Your task to perform on an android device: Go to network settings Image 0: 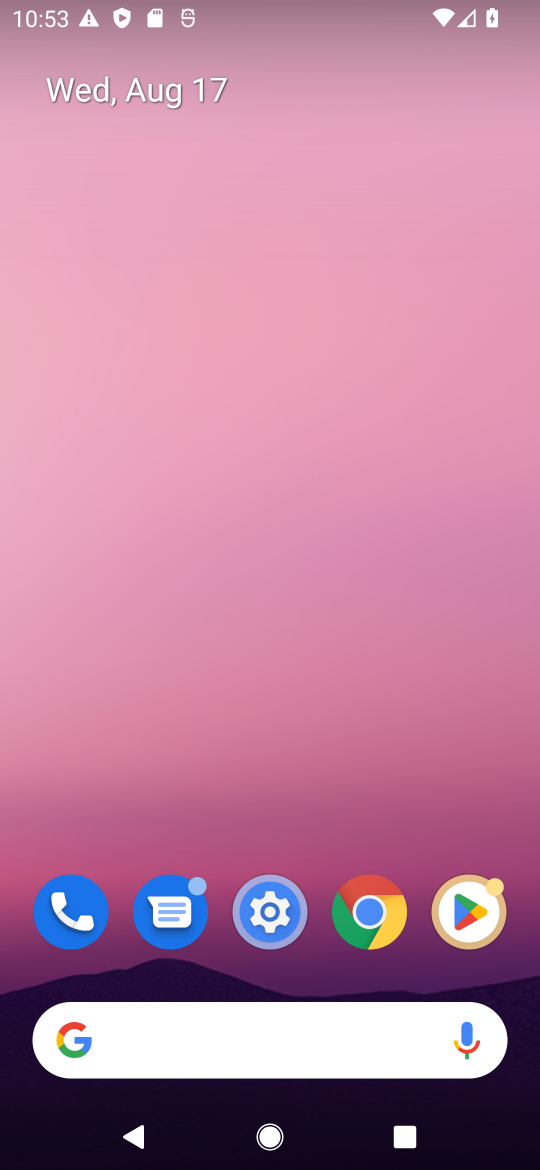
Step 0: drag from (37, 1047) to (400, 325)
Your task to perform on an android device: Go to network settings Image 1: 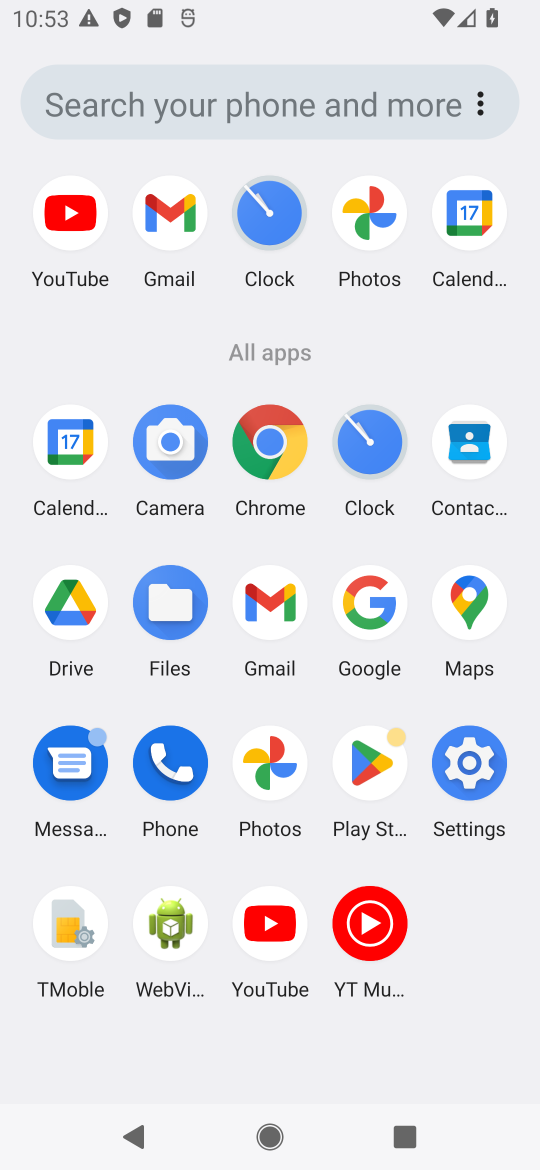
Step 1: click (465, 761)
Your task to perform on an android device: Go to network settings Image 2: 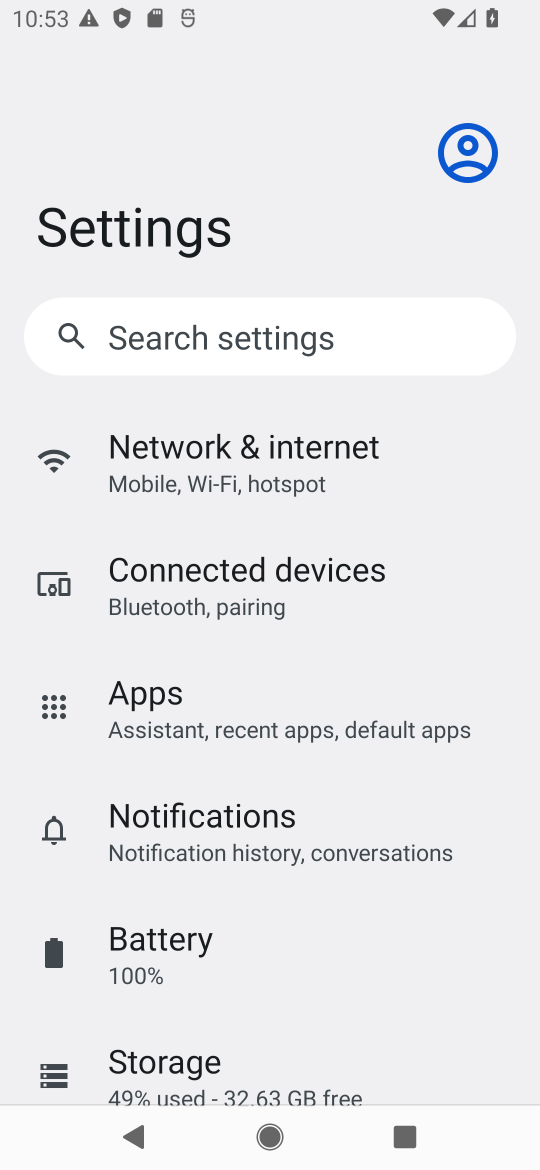
Step 2: click (250, 473)
Your task to perform on an android device: Go to network settings Image 3: 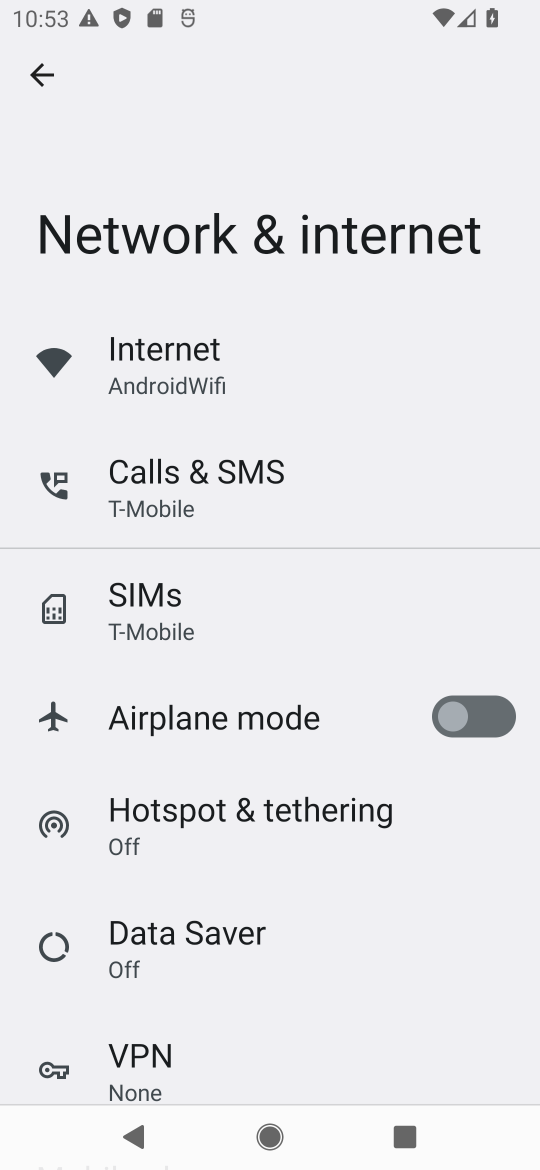
Step 3: click (210, 367)
Your task to perform on an android device: Go to network settings Image 4: 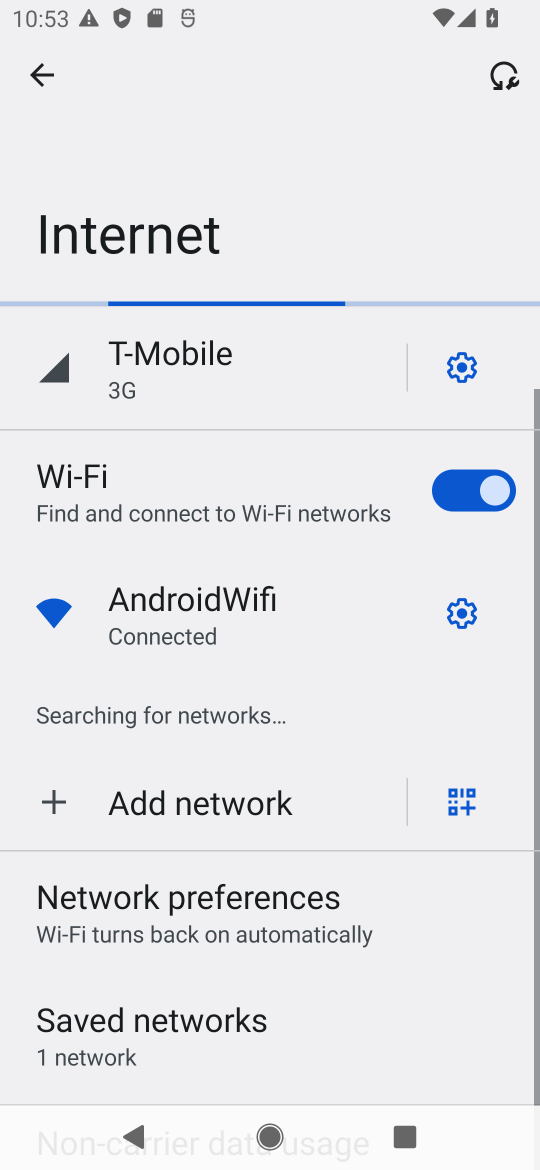
Step 4: task complete